Your task to perform on an android device: turn on sleep mode Image 0: 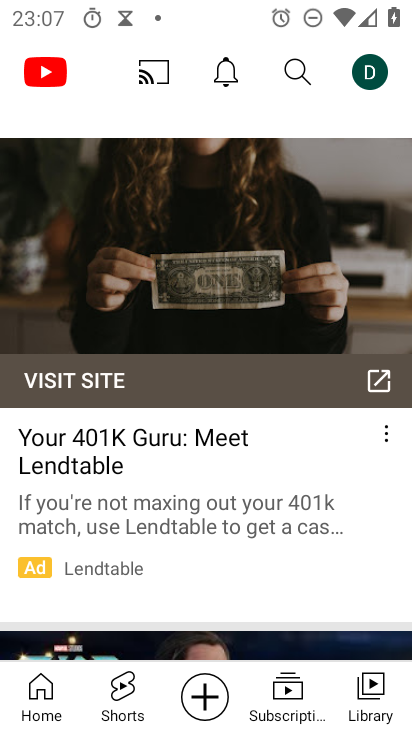
Step 0: press home button
Your task to perform on an android device: turn on sleep mode Image 1: 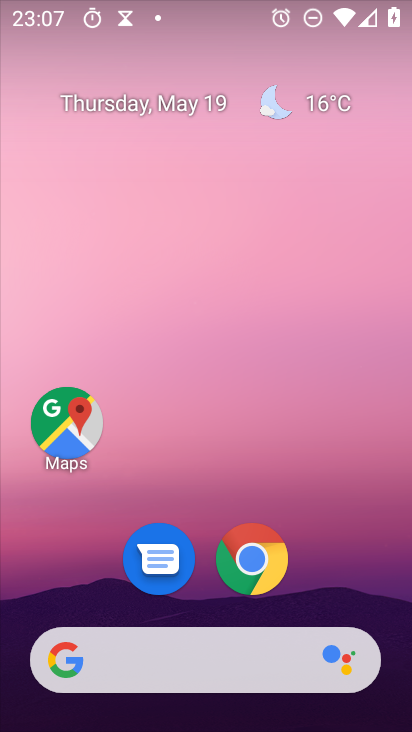
Step 1: drag from (219, 645) to (204, 215)
Your task to perform on an android device: turn on sleep mode Image 2: 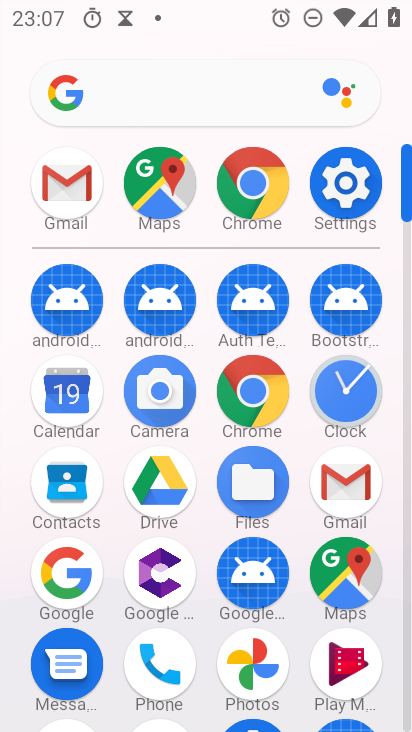
Step 2: click (352, 189)
Your task to perform on an android device: turn on sleep mode Image 3: 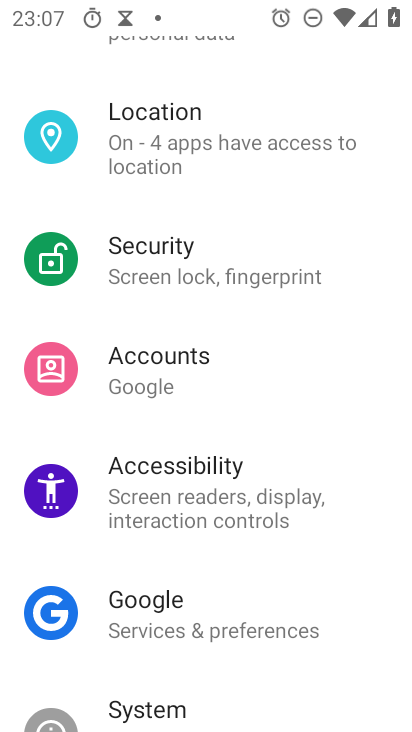
Step 3: drag from (334, 164) to (327, 594)
Your task to perform on an android device: turn on sleep mode Image 4: 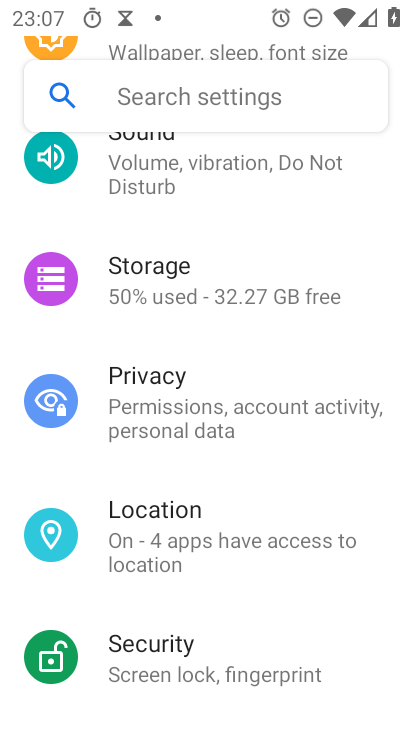
Step 4: drag from (303, 216) to (309, 716)
Your task to perform on an android device: turn on sleep mode Image 5: 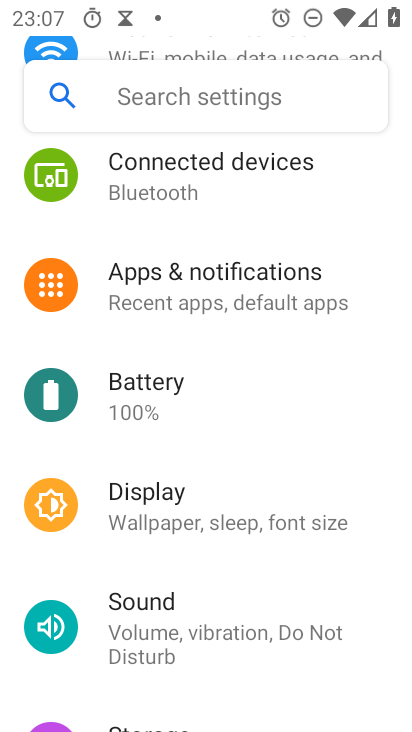
Step 5: drag from (282, 225) to (276, 715)
Your task to perform on an android device: turn on sleep mode Image 6: 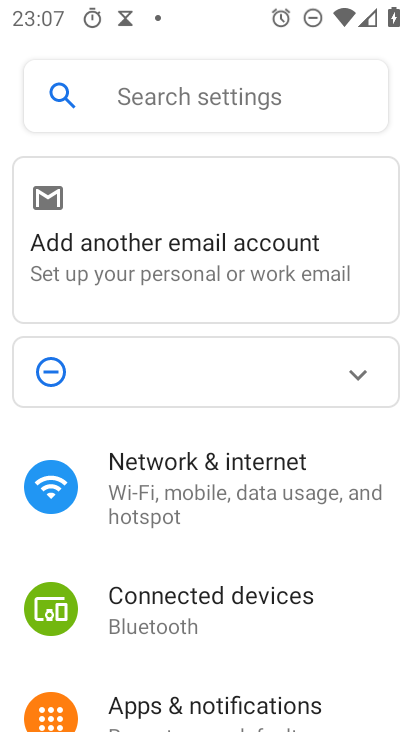
Step 6: drag from (279, 672) to (272, 308)
Your task to perform on an android device: turn on sleep mode Image 7: 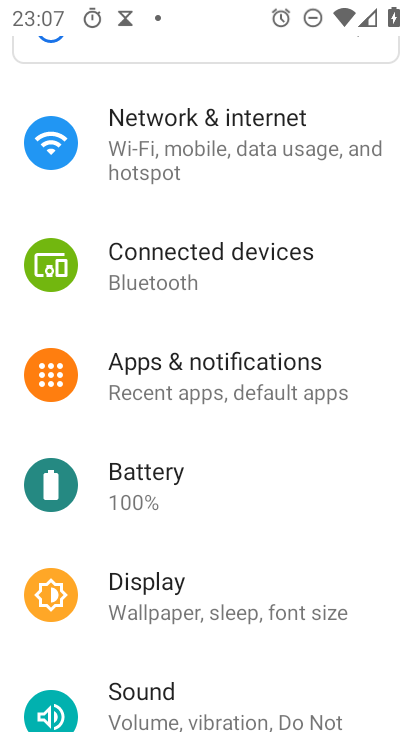
Step 7: drag from (231, 663) to (232, 411)
Your task to perform on an android device: turn on sleep mode Image 8: 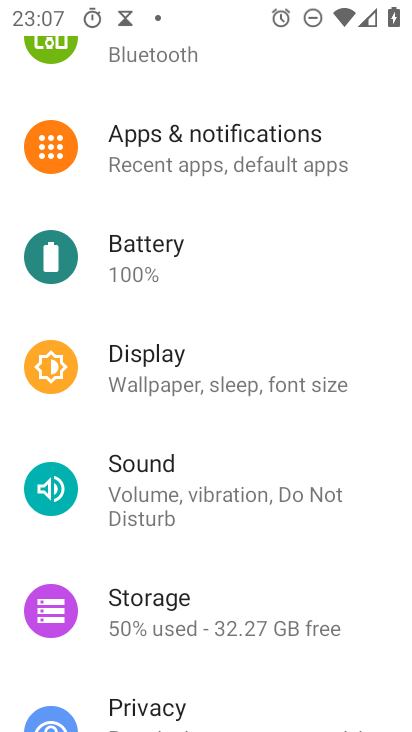
Step 8: click (229, 380)
Your task to perform on an android device: turn on sleep mode Image 9: 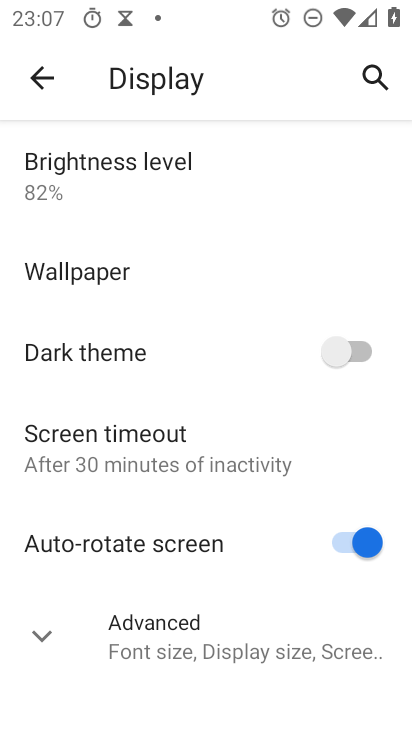
Step 9: click (39, 76)
Your task to perform on an android device: turn on sleep mode Image 10: 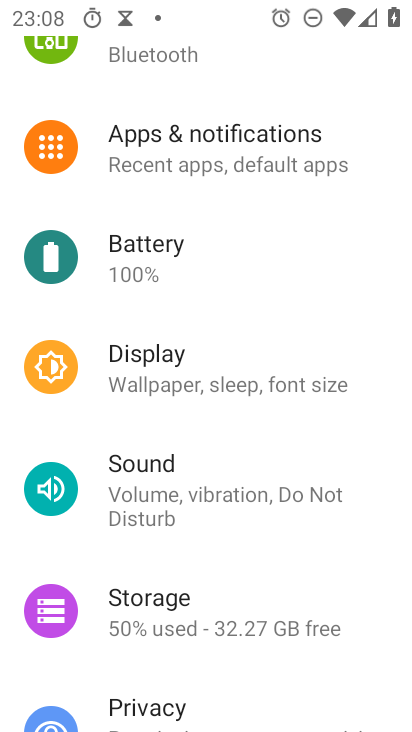
Step 10: task complete